Your task to perform on an android device: Go to accessibility settings Image 0: 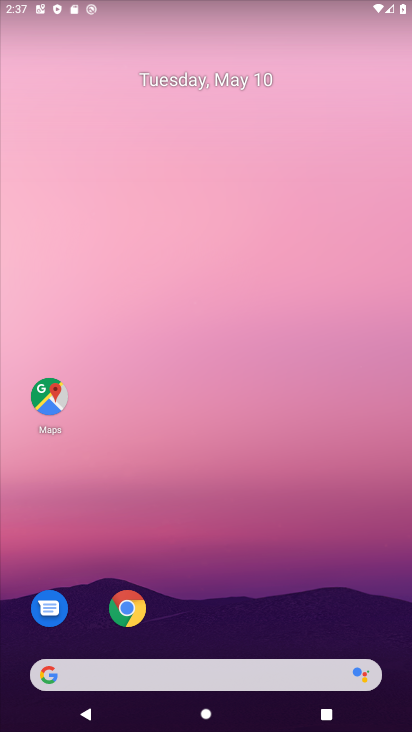
Step 0: drag from (226, 623) to (287, 5)
Your task to perform on an android device: Go to accessibility settings Image 1: 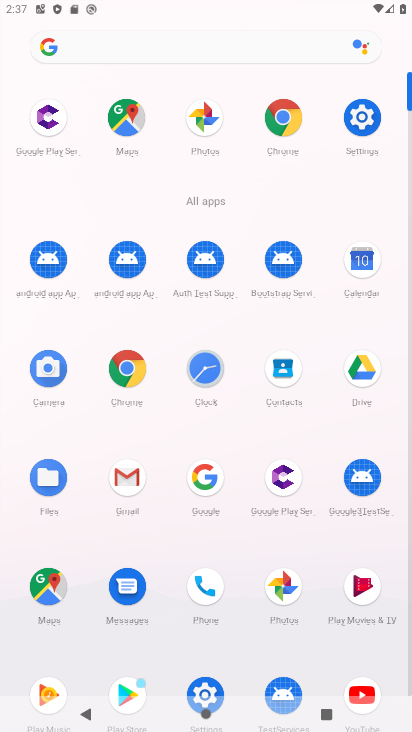
Step 1: click (206, 683)
Your task to perform on an android device: Go to accessibility settings Image 2: 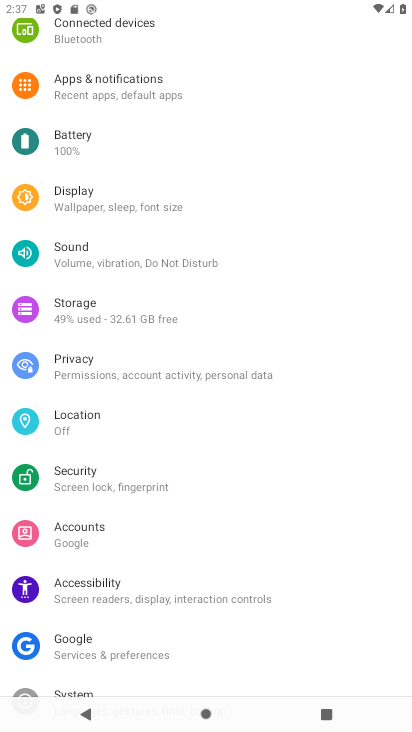
Step 2: click (120, 602)
Your task to perform on an android device: Go to accessibility settings Image 3: 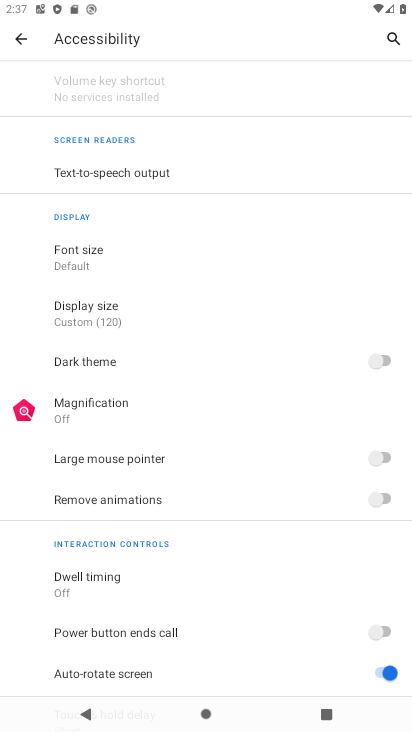
Step 3: task complete